Your task to perform on an android device: Open Google Chrome and open the bookmarks view Image 0: 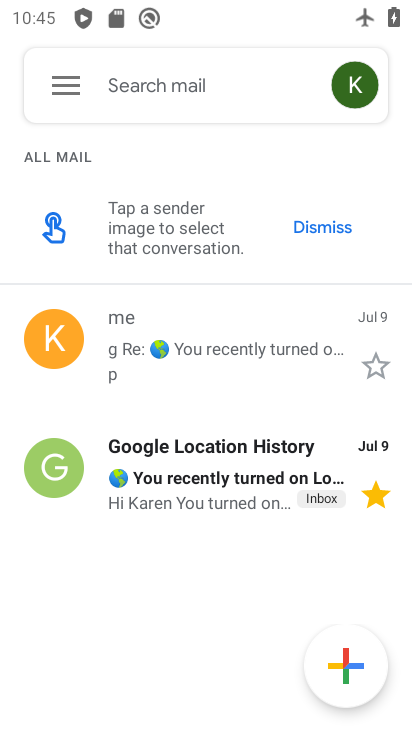
Step 0: press home button
Your task to perform on an android device: Open Google Chrome and open the bookmarks view Image 1: 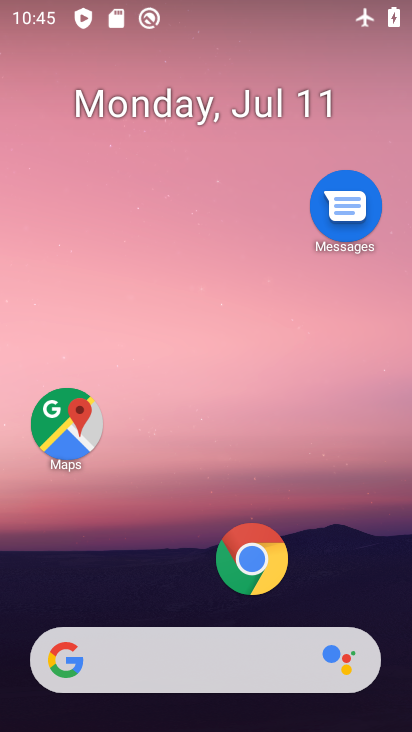
Step 1: drag from (364, 580) to (360, 168)
Your task to perform on an android device: Open Google Chrome and open the bookmarks view Image 2: 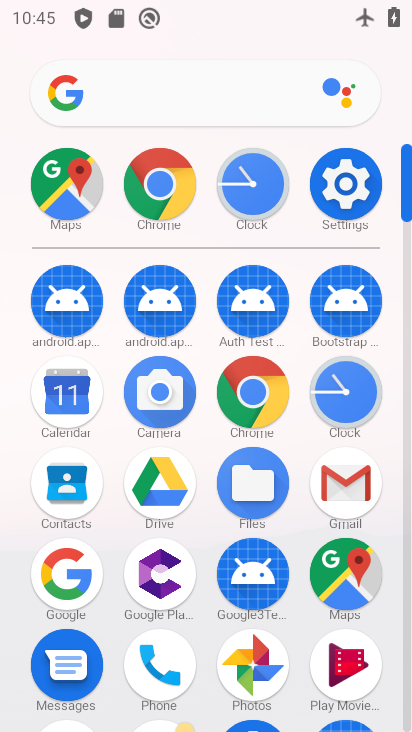
Step 2: click (258, 393)
Your task to perform on an android device: Open Google Chrome and open the bookmarks view Image 3: 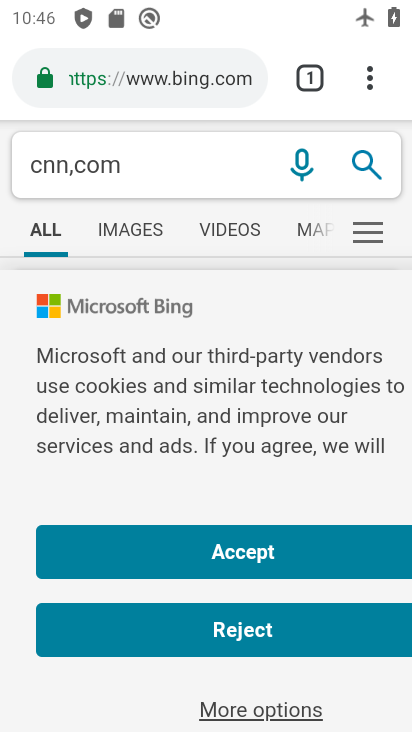
Step 3: click (369, 89)
Your task to perform on an android device: Open Google Chrome and open the bookmarks view Image 4: 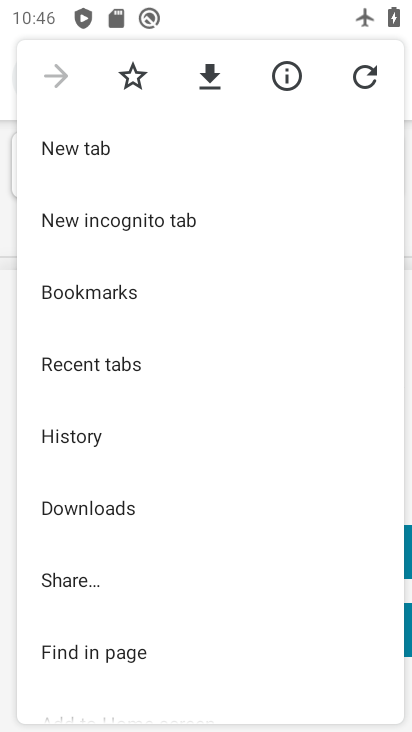
Step 4: drag from (319, 451) to (315, 398)
Your task to perform on an android device: Open Google Chrome and open the bookmarks view Image 5: 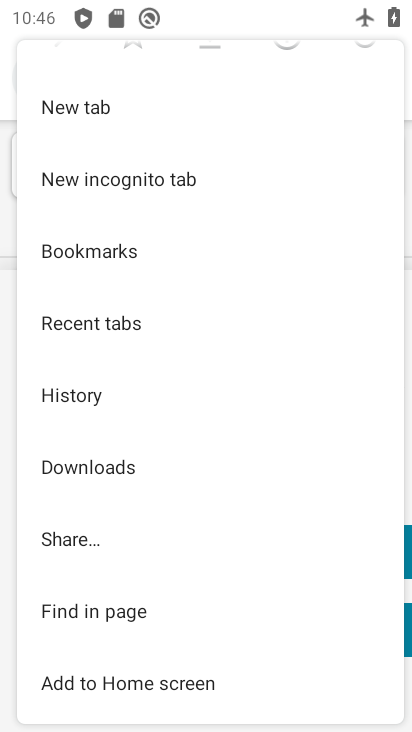
Step 5: drag from (309, 458) to (318, 375)
Your task to perform on an android device: Open Google Chrome and open the bookmarks view Image 6: 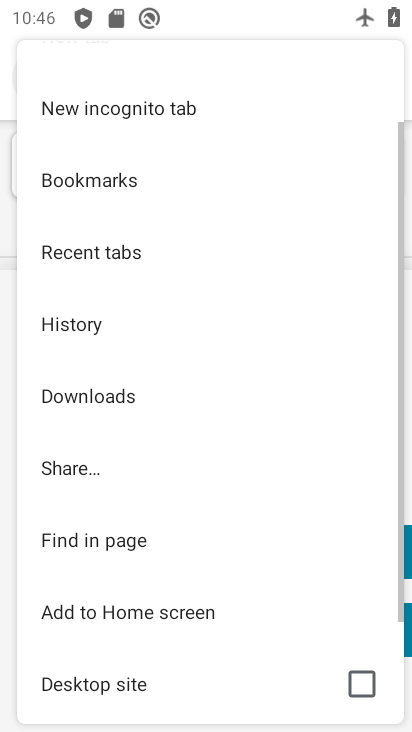
Step 6: drag from (310, 442) to (309, 337)
Your task to perform on an android device: Open Google Chrome and open the bookmarks view Image 7: 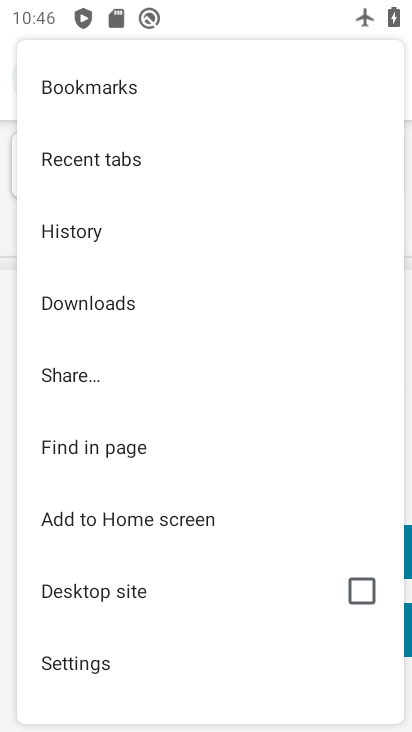
Step 7: drag from (300, 452) to (302, 303)
Your task to perform on an android device: Open Google Chrome and open the bookmarks view Image 8: 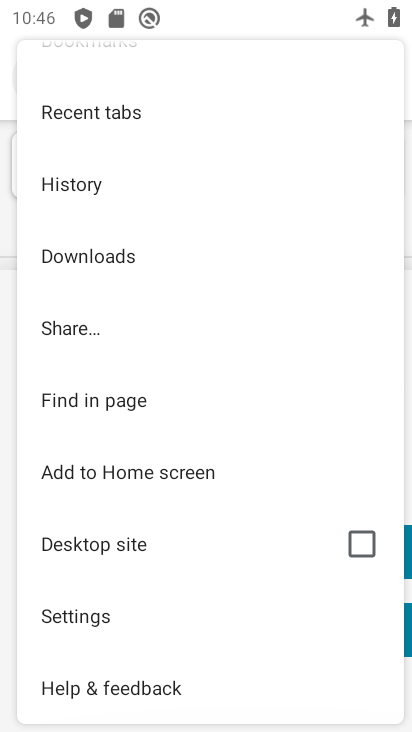
Step 8: drag from (293, 270) to (288, 345)
Your task to perform on an android device: Open Google Chrome and open the bookmarks view Image 9: 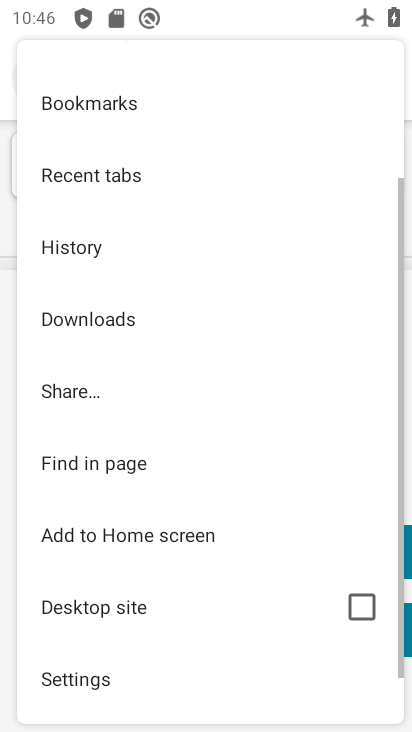
Step 9: drag from (288, 268) to (286, 340)
Your task to perform on an android device: Open Google Chrome and open the bookmarks view Image 10: 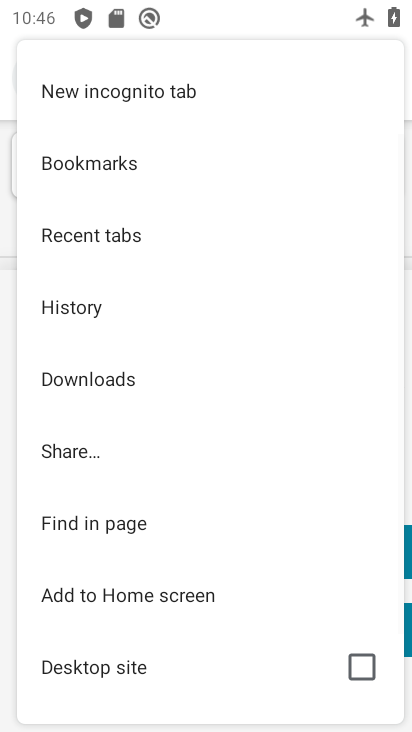
Step 10: drag from (273, 253) to (306, 459)
Your task to perform on an android device: Open Google Chrome and open the bookmarks view Image 11: 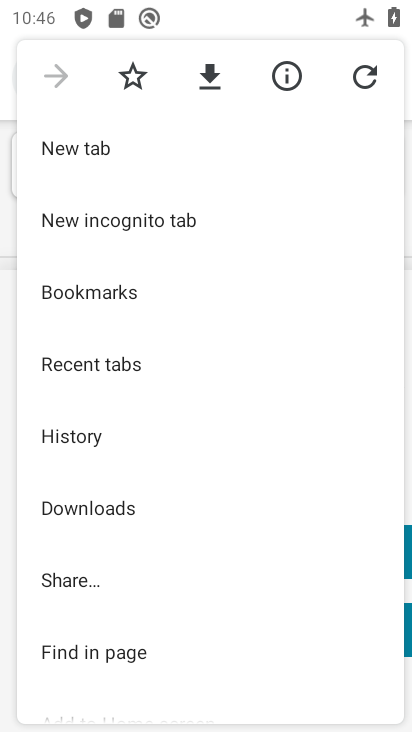
Step 11: click (173, 297)
Your task to perform on an android device: Open Google Chrome and open the bookmarks view Image 12: 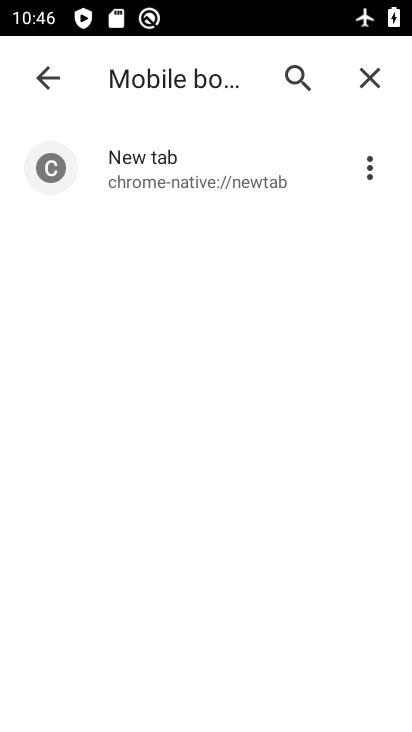
Step 12: task complete